Your task to perform on an android device: Go to battery settings Image 0: 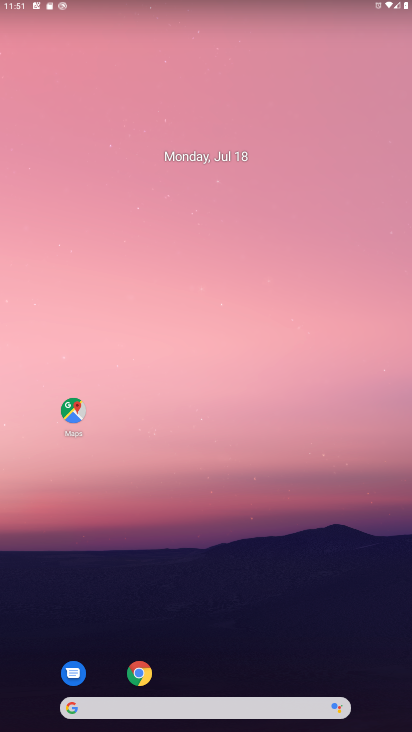
Step 0: drag from (198, 679) to (211, 243)
Your task to perform on an android device: Go to battery settings Image 1: 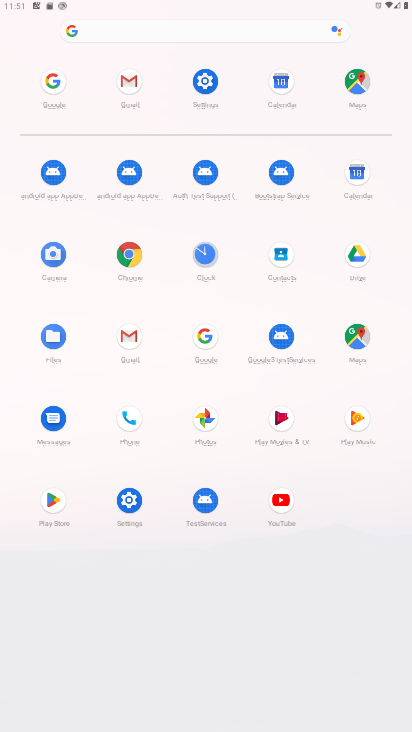
Step 1: click (203, 82)
Your task to perform on an android device: Go to battery settings Image 2: 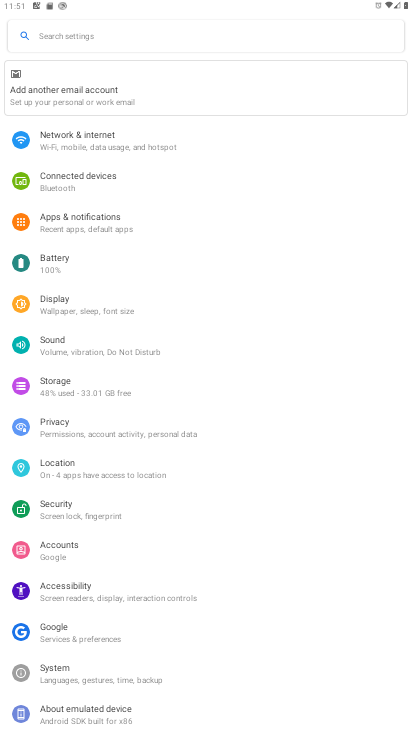
Step 2: click (76, 267)
Your task to perform on an android device: Go to battery settings Image 3: 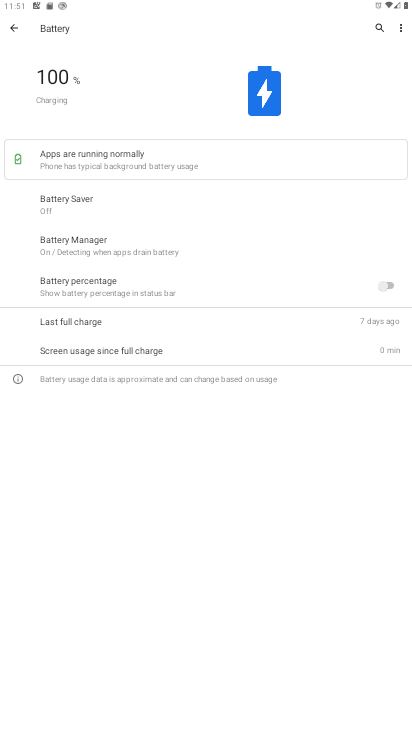
Step 3: task complete